Your task to perform on an android device: What's on my calendar tomorrow? Image 0: 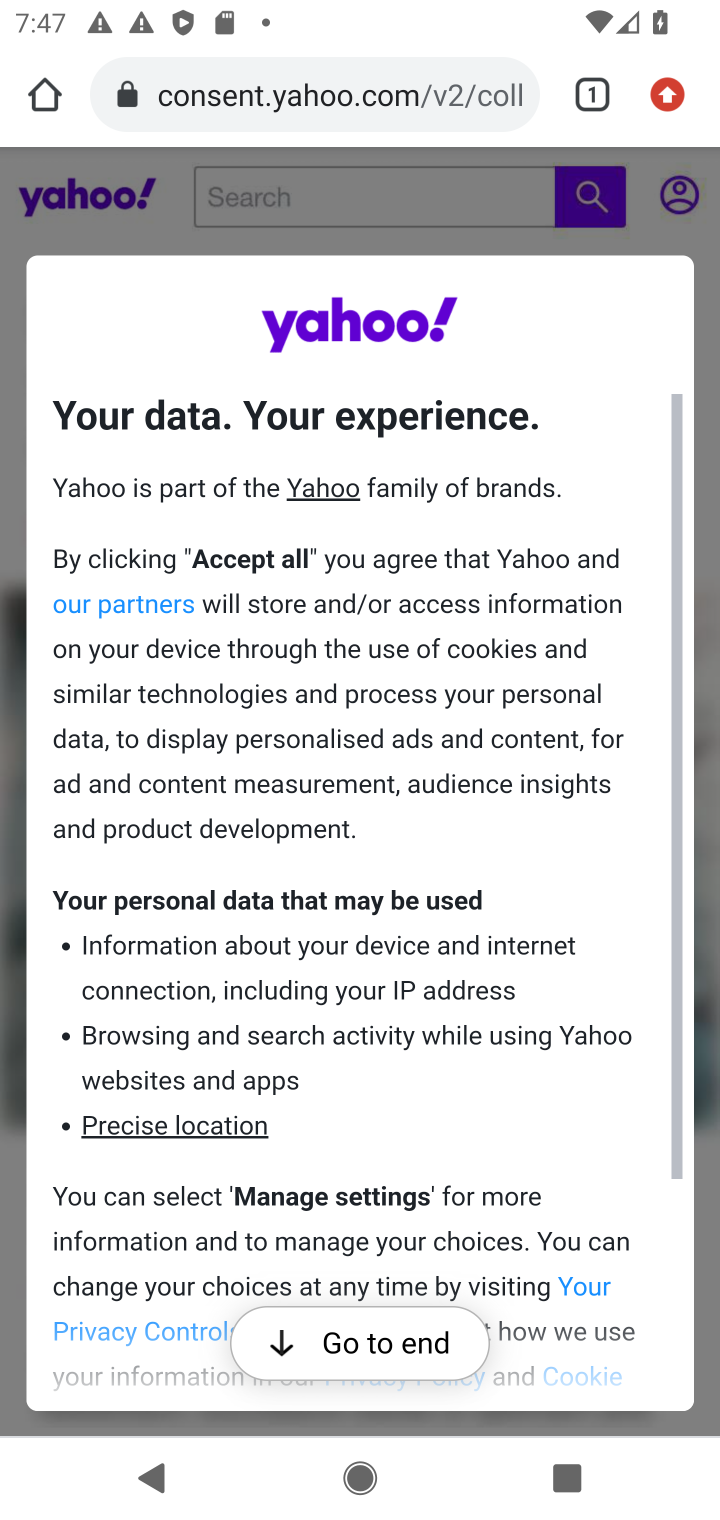
Step 0: press home button
Your task to perform on an android device: What's on my calendar tomorrow? Image 1: 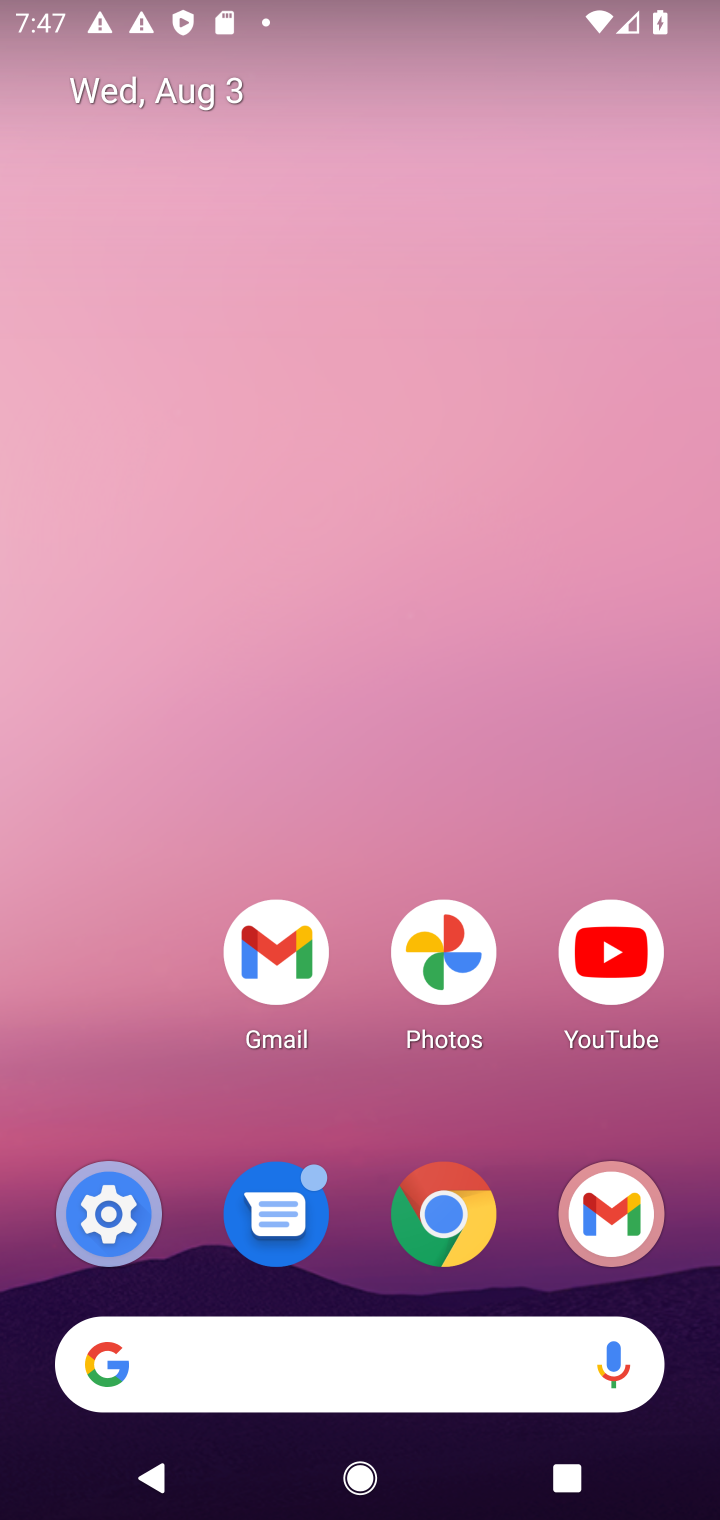
Step 1: drag from (319, 1263) to (366, 220)
Your task to perform on an android device: What's on my calendar tomorrow? Image 2: 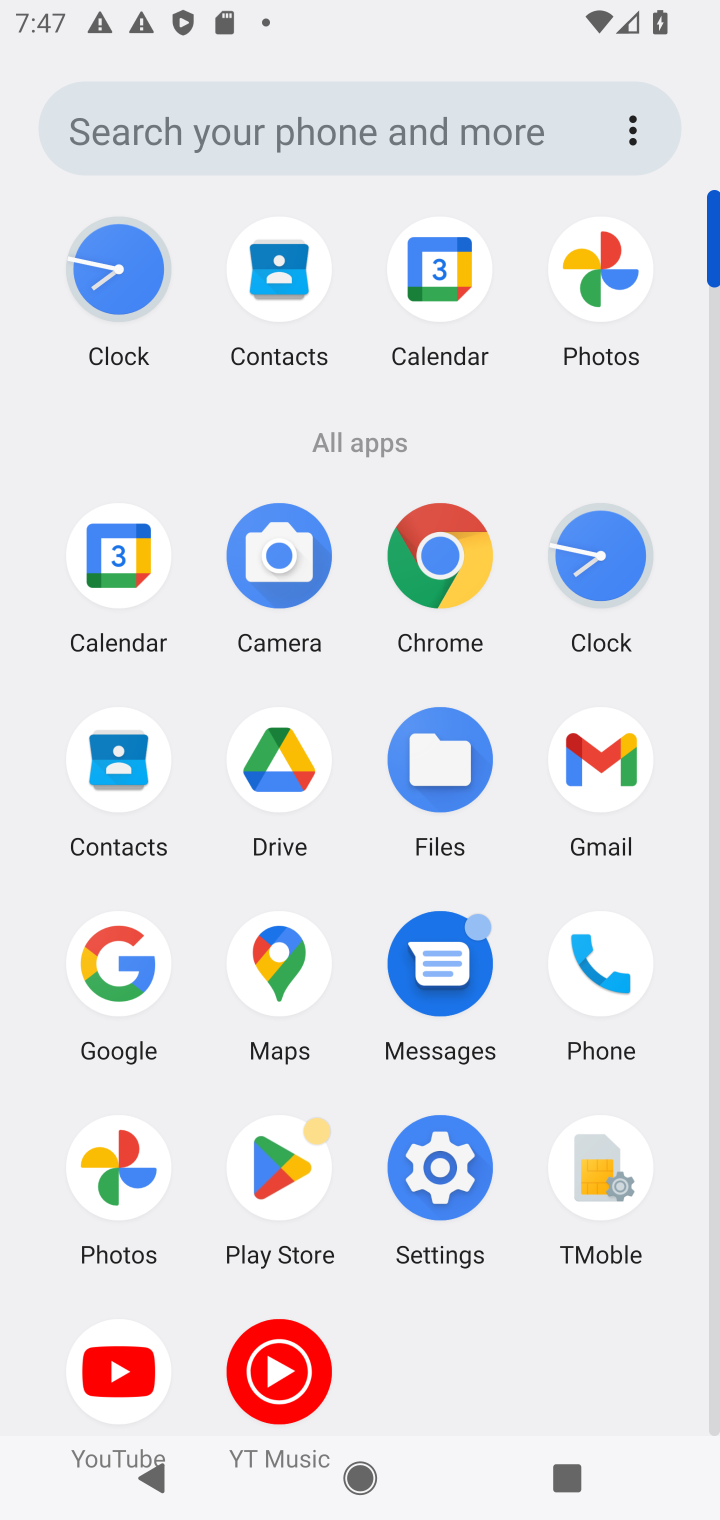
Step 2: click (427, 284)
Your task to perform on an android device: What's on my calendar tomorrow? Image 3: 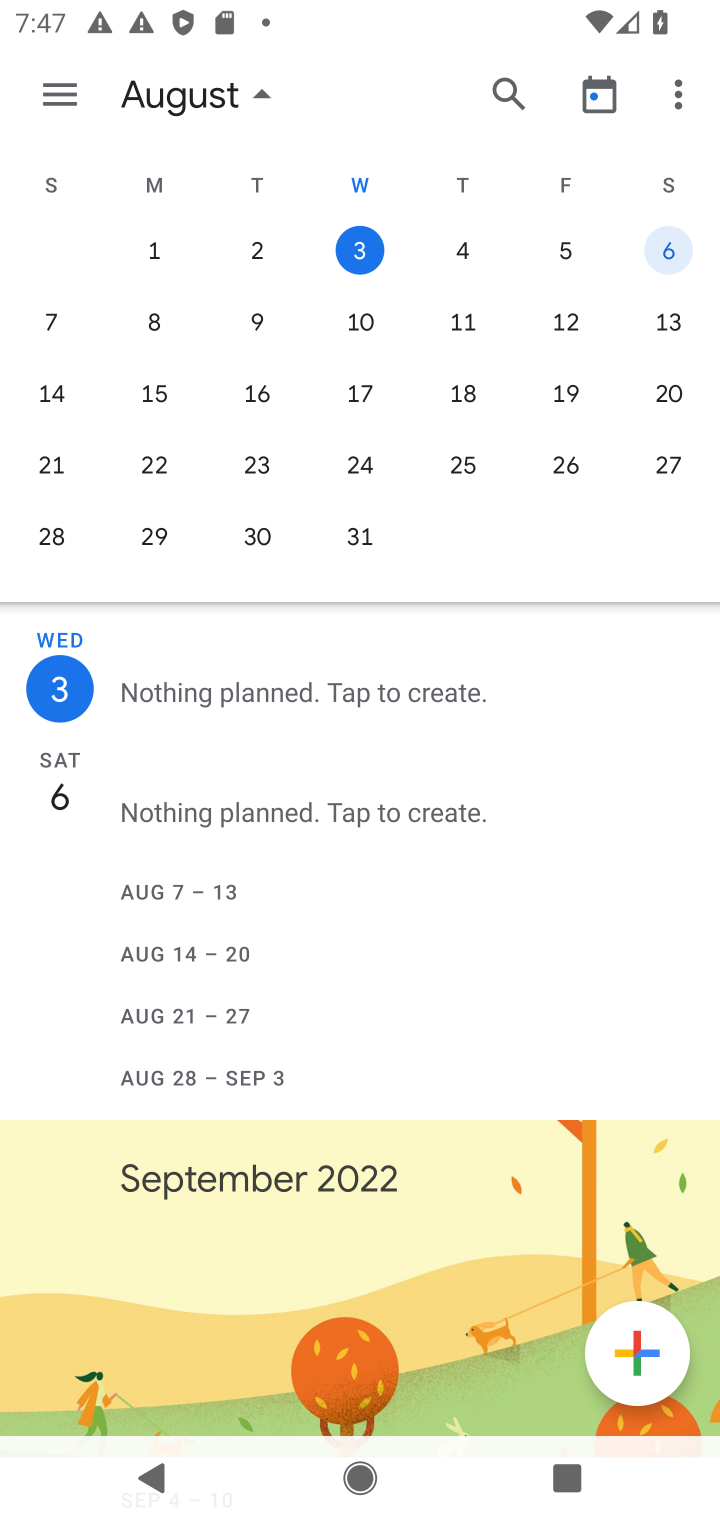
Step 3: click (462, 239)
Your task to perform on an android device: What's on my calendar tomorrow? Image 4: 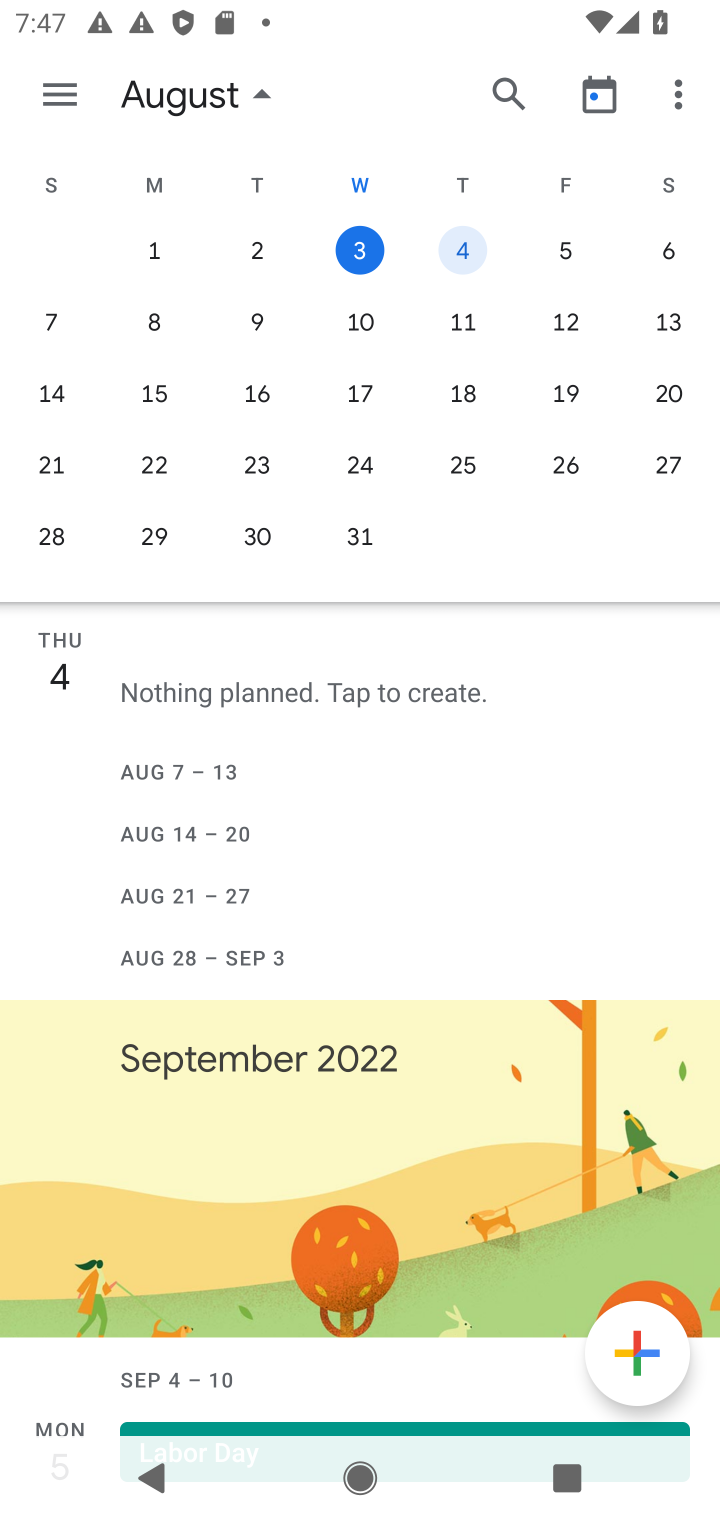
Step 4: click (467, 249)
Your task to perform on an android device: What's on my calendar tomorrow? Image 5: 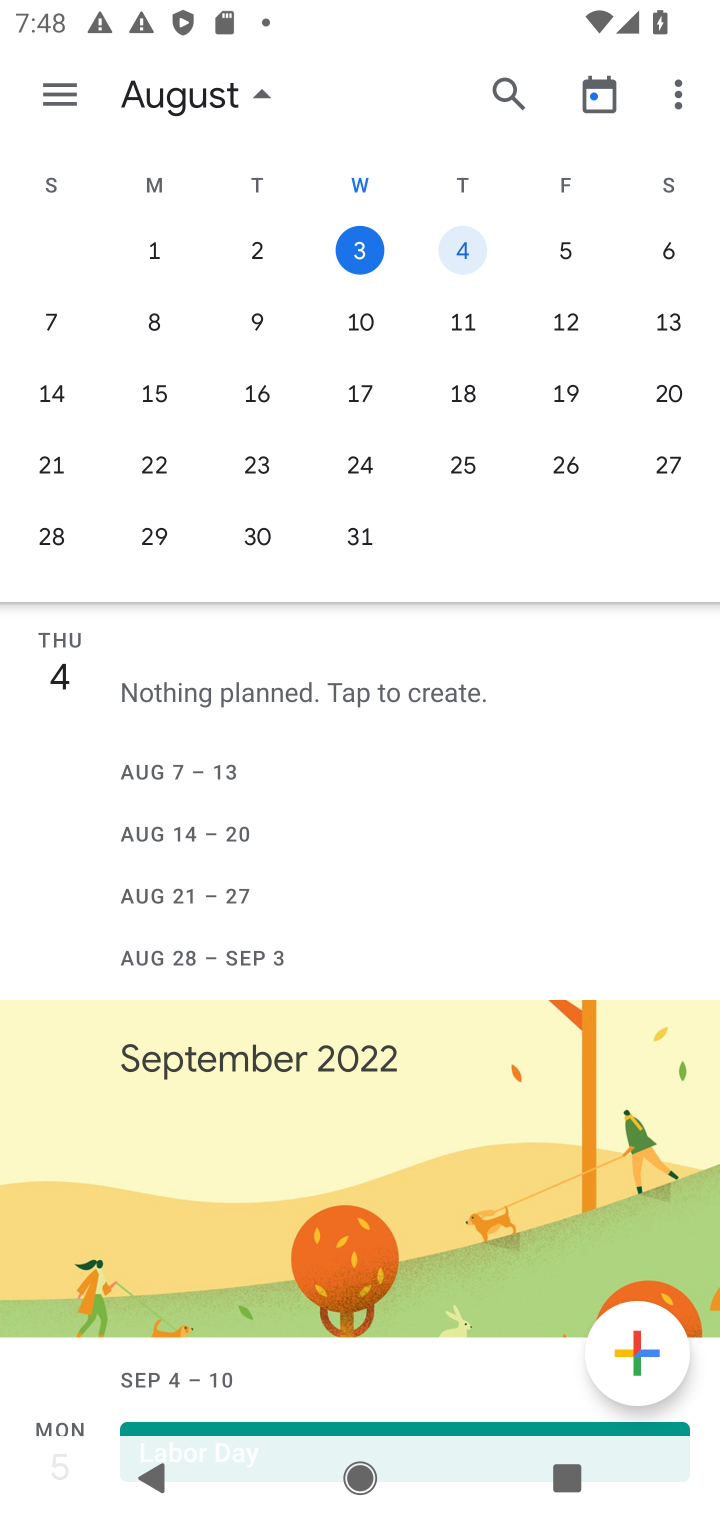
Step 5: click (468, 245)
Your task to perform on an android device: What's on my calendar tomorrow? Image 6: 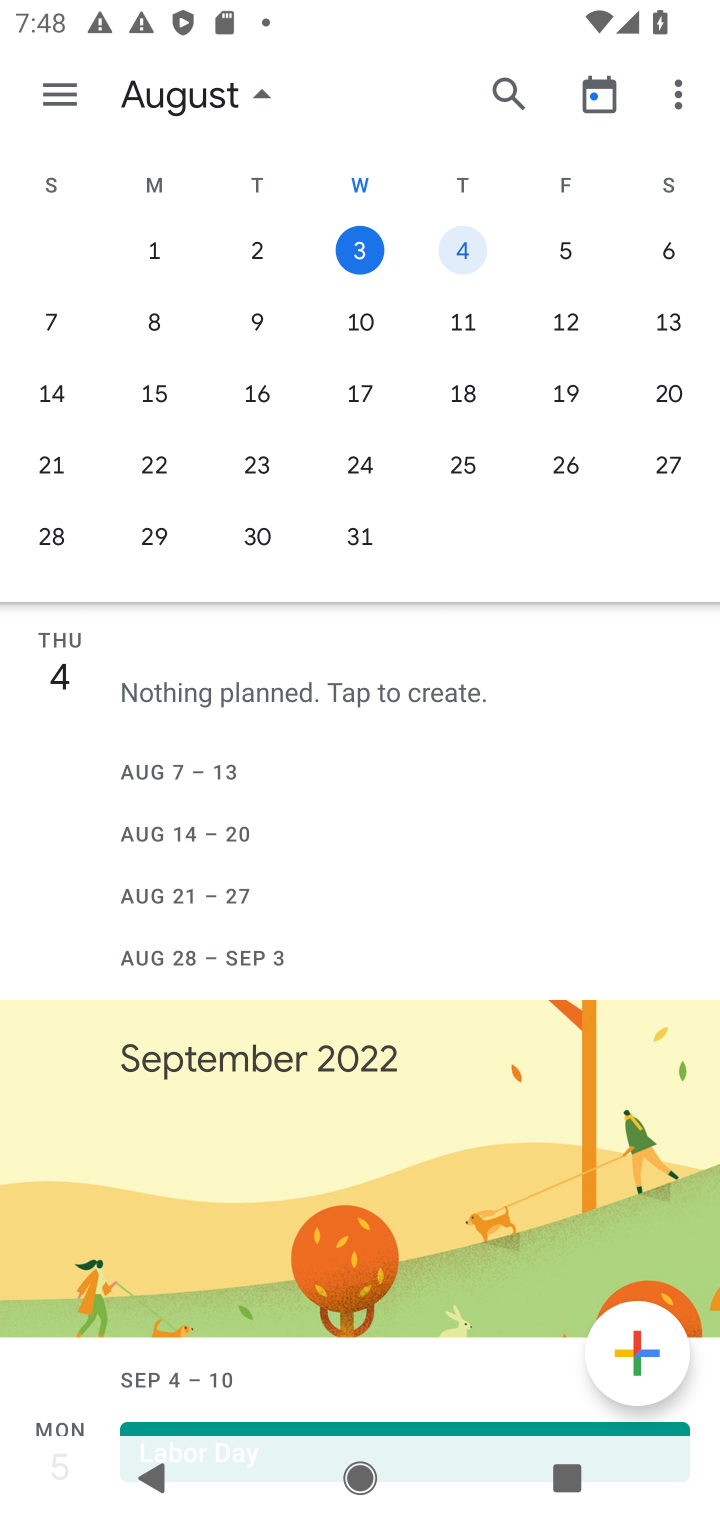
Step 6: task complete